Your task to perform on an android device: change keyboard looks Image 0: 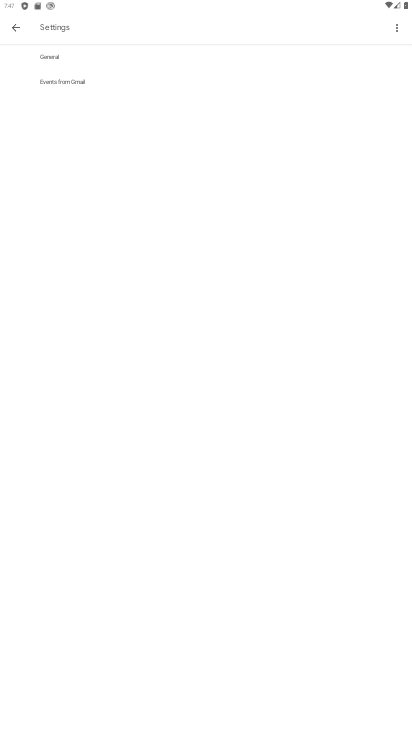
Step 0: press home button
Your task to perform on an android device: change keyboard looks Image 1: 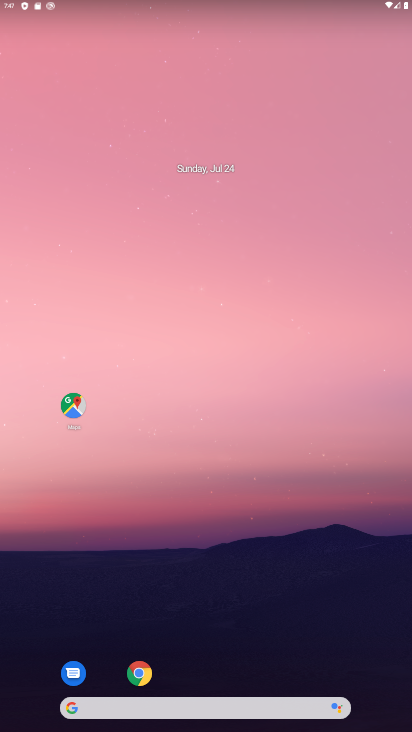
Step 1: drag from (259, 647) to (275, 0)
Your task to perform on an android device: change keyboard looks Image 2: 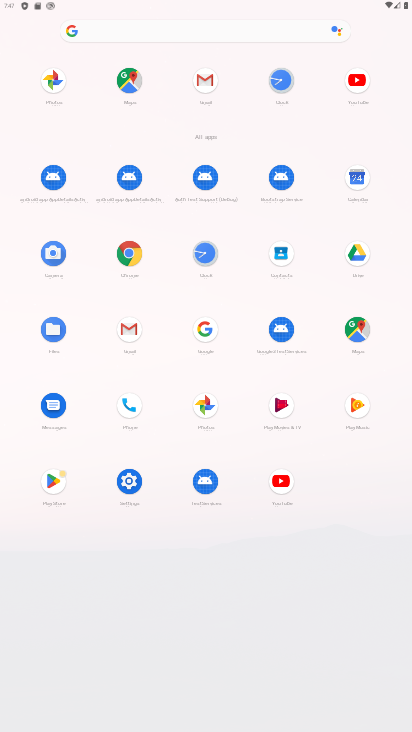
Step 2: click (124, 481)
Your task to perform on an android device: change keyboard looks Image 3: 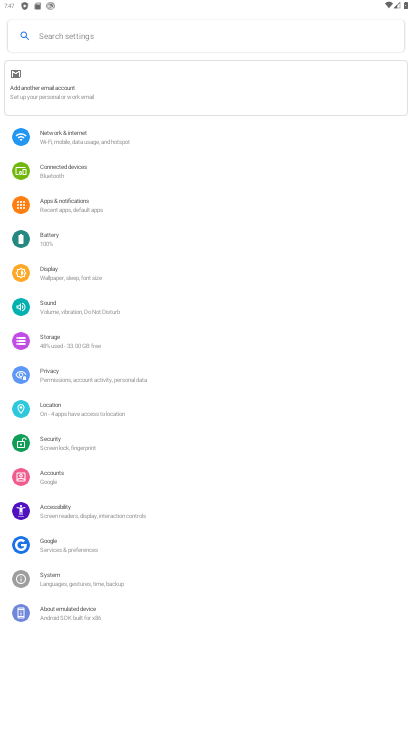
Step 3: click (63, 570)
Your task to perform on an android device: change keyboard looks Image 4: 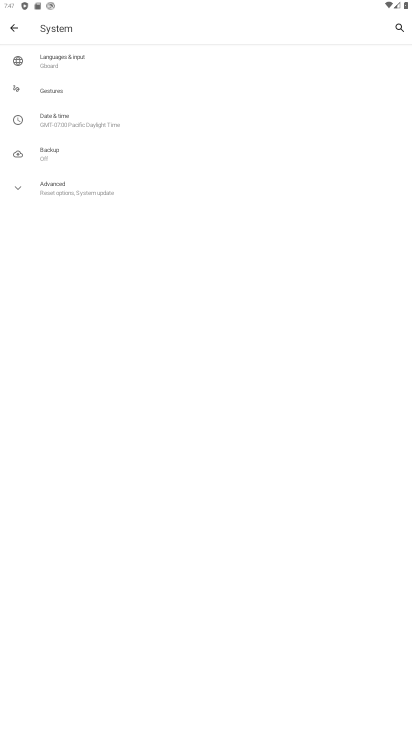
Step 4: click (104, 55)
Your task to perform on an android device: change keyboard looks Image 5: 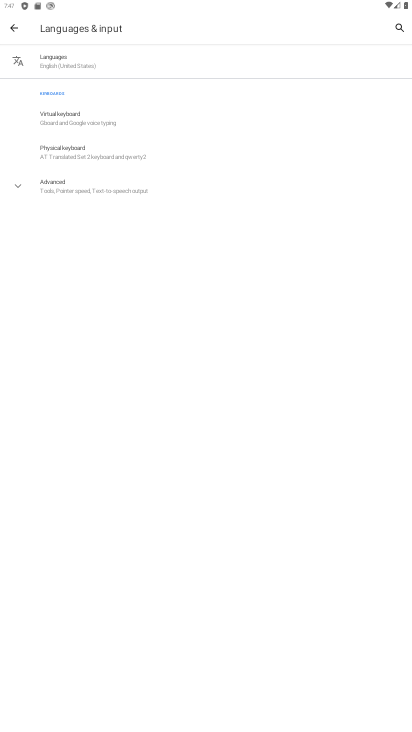
Step 5: click (133, 124)
Your task to perform on an android device: change keyboard looks Image 6: 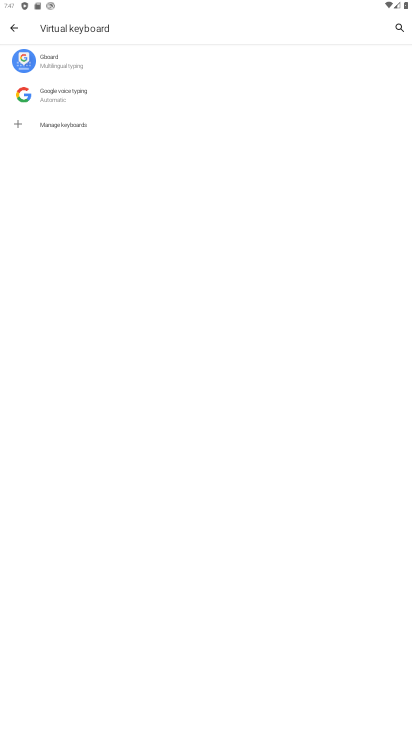
Step 6: click (134, 57)
Your task to perform on an android device: change keyboard looks Image 7: 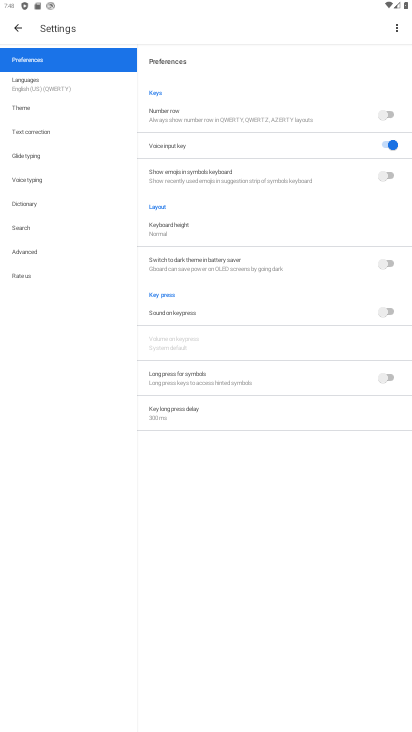
Step 7: click (54, 107)
Your task to perform on an android device: change keyboard looks Image 8: 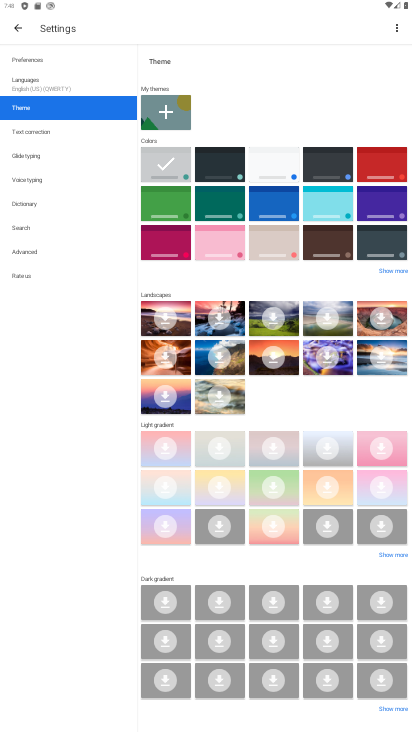
Step 8: click (209, 164)
Your task to perform on an android device: change keyboard looks Image 9: 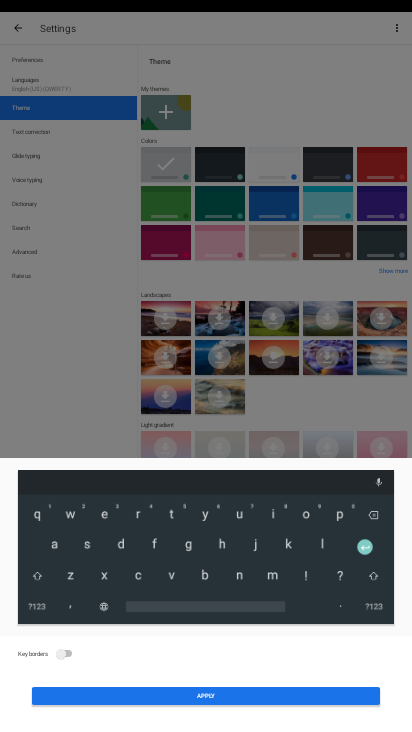
Step 9: click (216, 703)
Your task to perform on an android device: change keyboard looks Image 10: 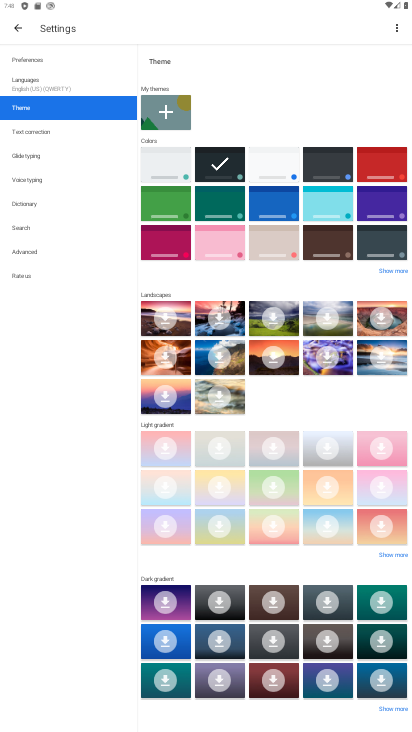
Step 10: task complete